Your task to perform on an android device: turn off picture-in-picture Image 0: 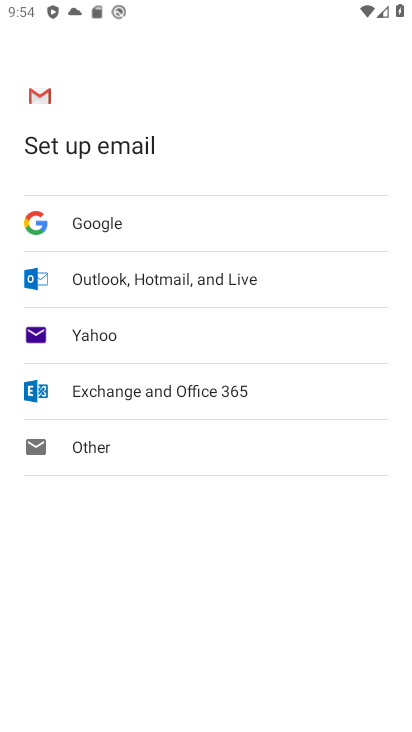
Step 0: press home button
Your task to perform on an android device: turn off picture-in-picture Image 1: 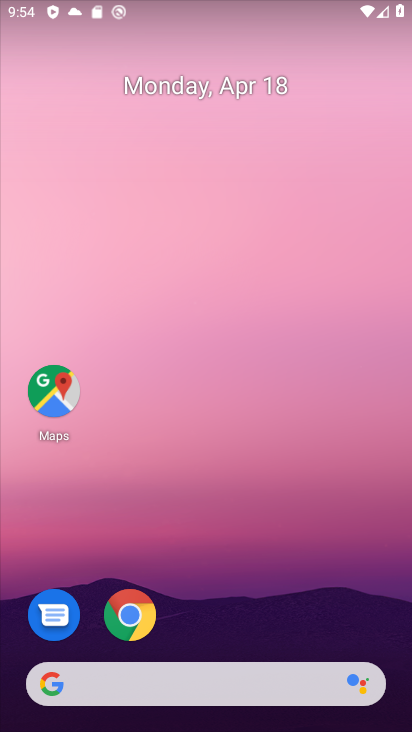
Step 1: click (137, 613)
Your task to perform on an android device: turn off picture-in-picture Image 2: 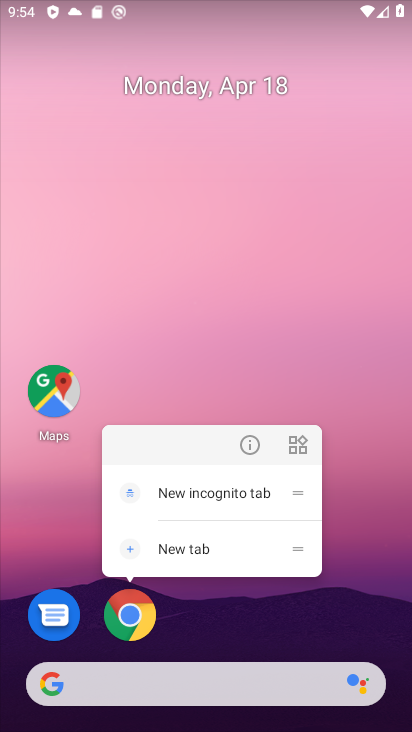
Step 2: click (246, 449)
Your task to perform on an android device: turn off picture-in-picture Image 3: 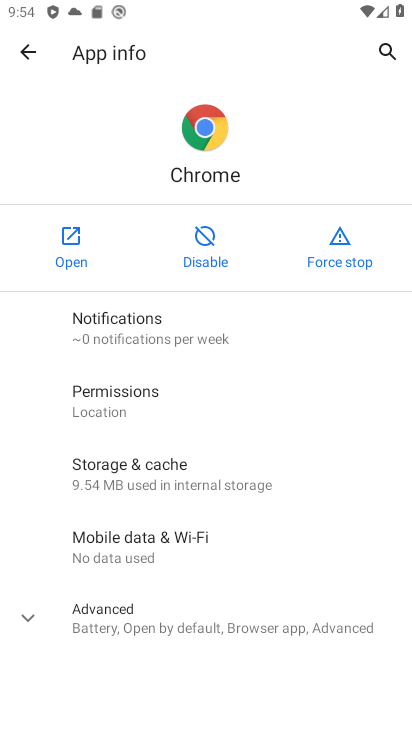
Step 3: drag from (207, 598) to (199, 347)
Your task to perform on an android device: turn off picture-in-picture Image 4: 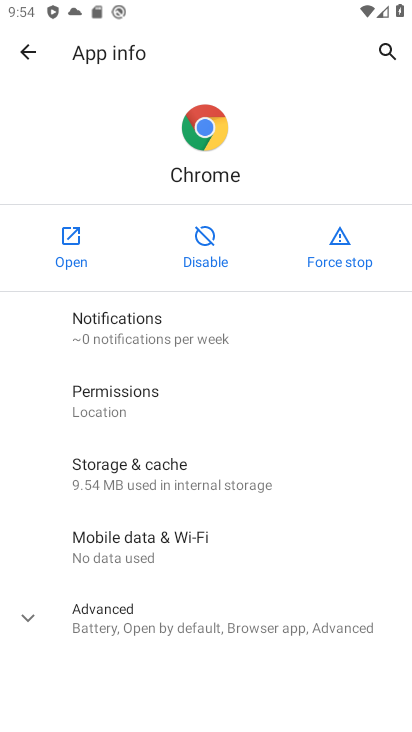
Step 4: click (27, 620)
Your task to perform on an android device: turn off picture-in-picture Image 5: 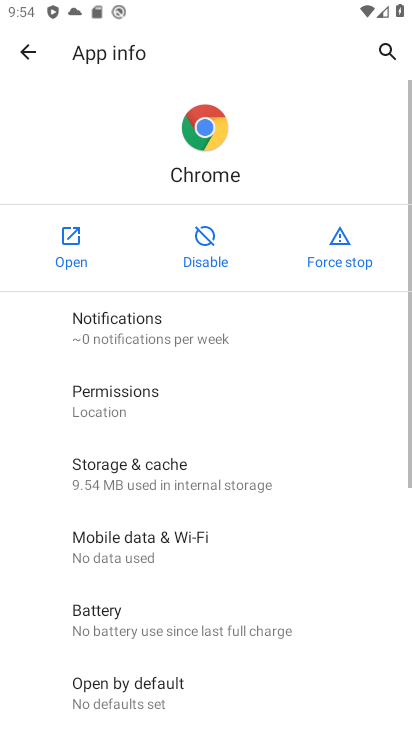
Step 5: drag from (154, 644) to (171, 262)
Your task to perform on an android device: turn off picture-in-picture Image 6: 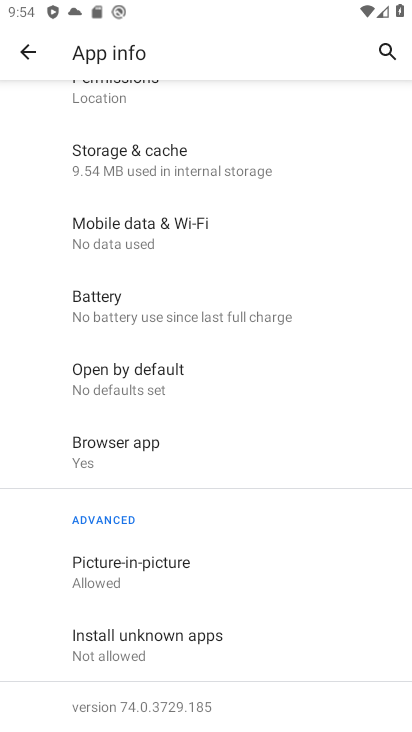
Step 6: click (152, 560)
Your task to perform on an android device: turn off picture-in-picture Image 7: 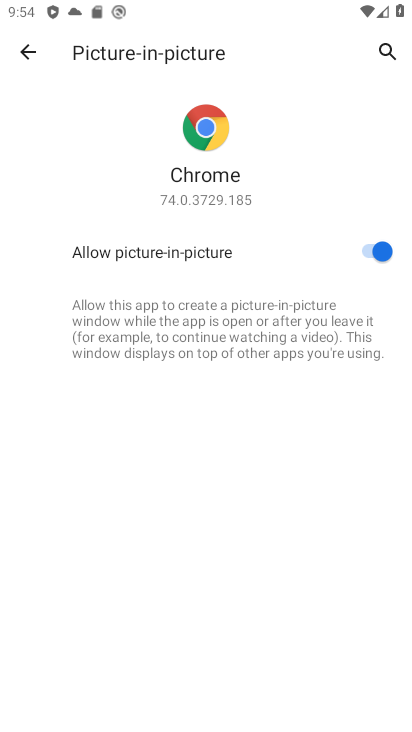
Step 7: click (377, 257)
Your task to perform on an android device: turn off picture-in-picture Image 8: 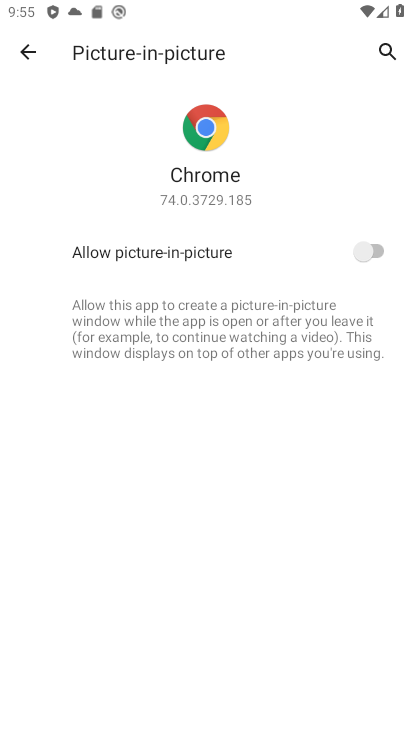
Step 8: task complete